Your task to perform on an android device: Open Android settings Image 0: 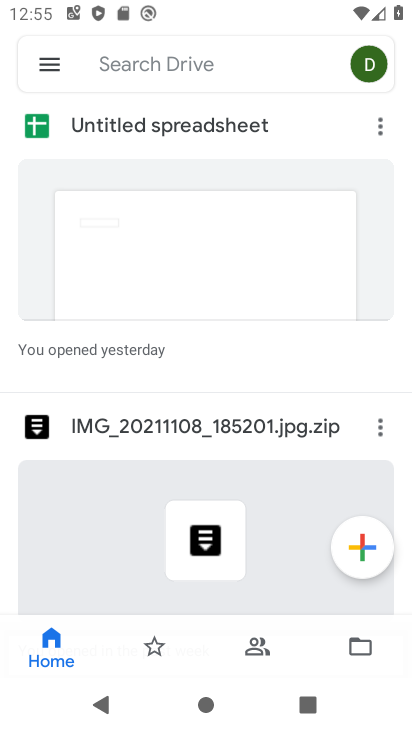
Step 0: press home button
Your task to perform on an android device: Open Android settings Image 1: 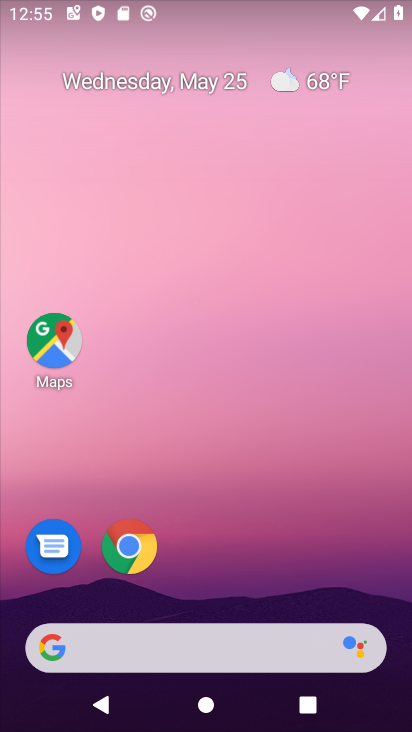
Step 1: drag from (243, 575) to (167, 44)
Your task to perform on an android device: Open Android settings Image 2: 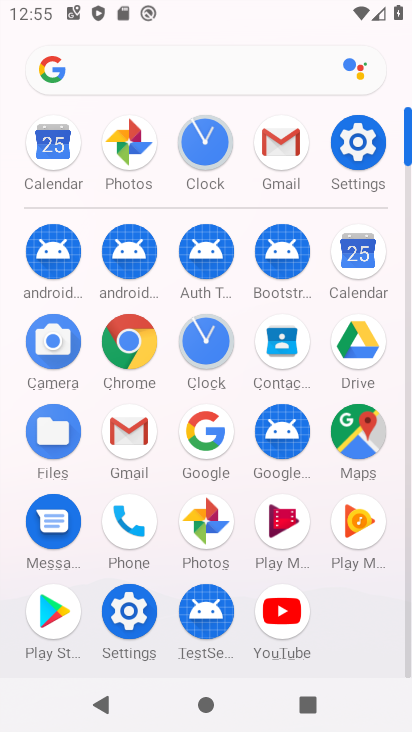
Step 2: click (351, 132)
Your task to perform on an android device: Open Android settings Image 3: 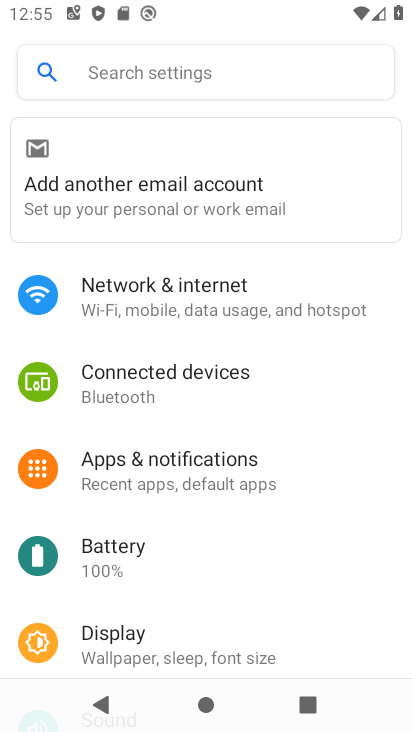
Step 3: task complete